Your task to perform on an android device: turn pop-ups on in chrome Image 0: 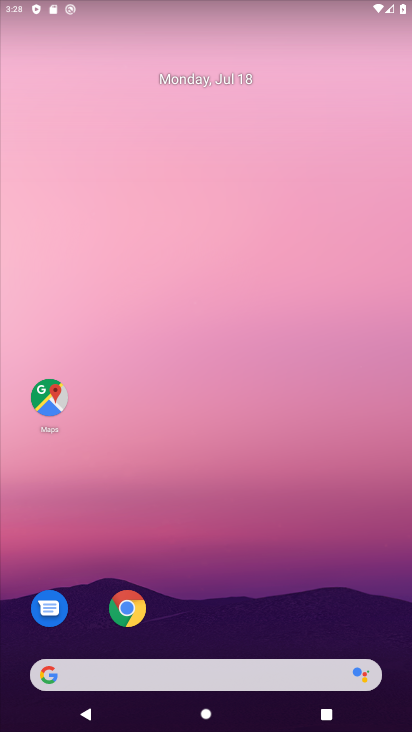
Step 0: drag from (251, 502) to (219, 235)
Your task to perform on an android device: turn pop-ups on in chrome Image 1: 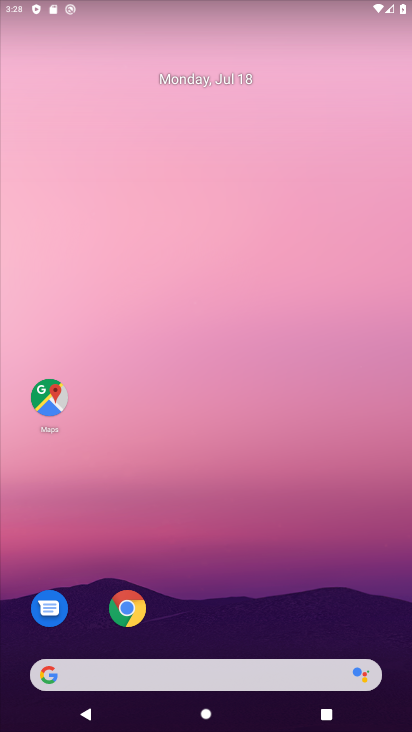
Step 1: drag from (258, 524) to (203, 155)
Your task to perform on an android device: turn pop-ups on in chrome Image 2: 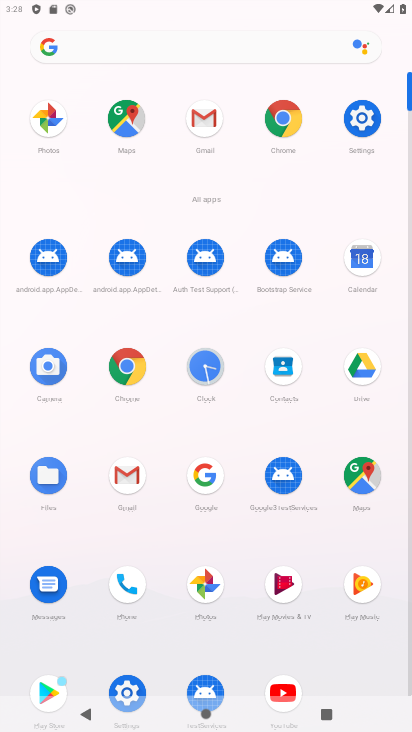
Step 2: click (125, 366)
Your task to perform on an android device: turn pop-ups on in chrome Image 3: 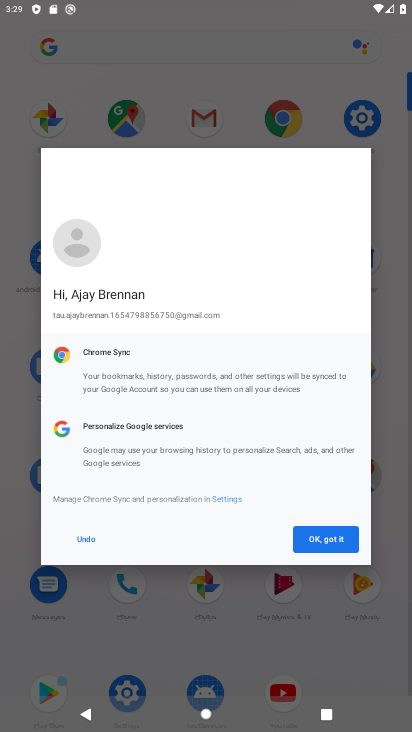
Step 3: task complete